Your task to perform on an android device: open app "Airtel Thanks" (install if not already installed) Image 0: 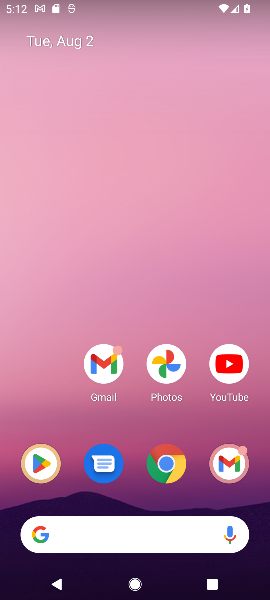
Step 0: click (42, 462)
Your task to perform on an android device: open app "Airtel Thanks" (install if not already installed) Image 1: 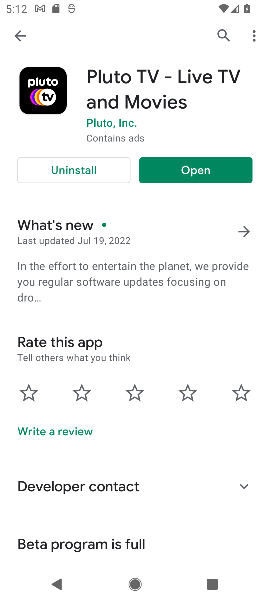
Step 1: click (222, 31)
Your task to perform on an android device: open app "Airtel Thanks" (install if not already installed) Image 2: 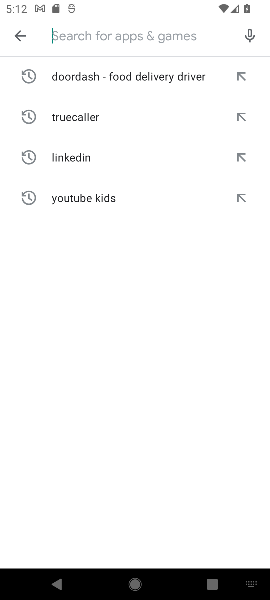
Step 2: type "Airtel Thanks"
Your task to perform on an android device: open app "Airtel Thanks" (install if not already installed) Image 3: 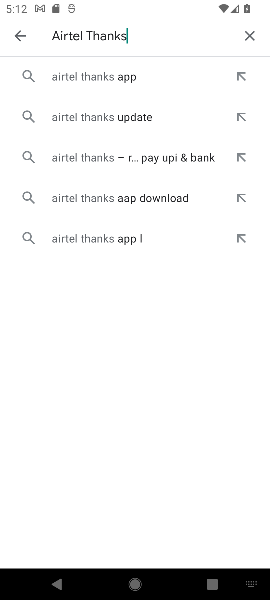
Step 3: click (109, 78)
Your task to perform on an android device: open app "Airtel Thanks" (install if not already installed) Image 4: 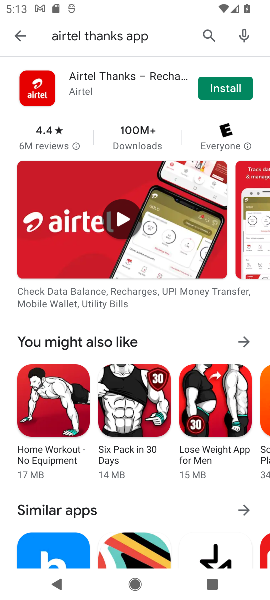
Step 4: click (230, 86)
Your task to perform on an android device: open app "Airtel Thanks" (install if not already installed) Image 5: 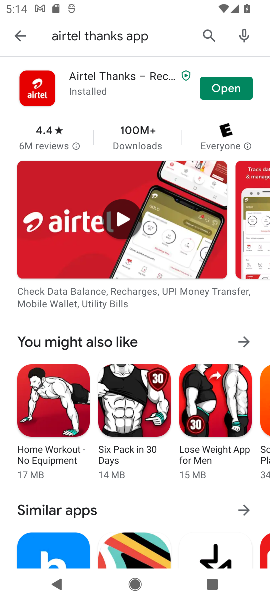
Step 5: click (219, 85)
Your task to perform on an android device: open app "Airtel Thanks" (install if not already installed) Image 6: 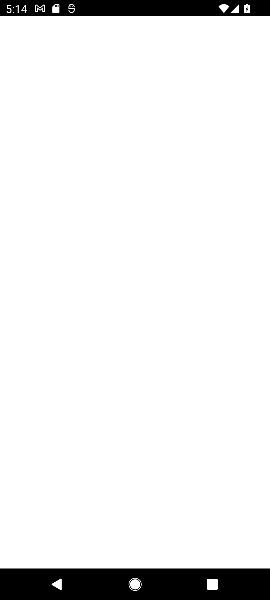
Step 6: task complete